Your task to perform on an android device: see tabs open on other devices in the chrome app Image 0: 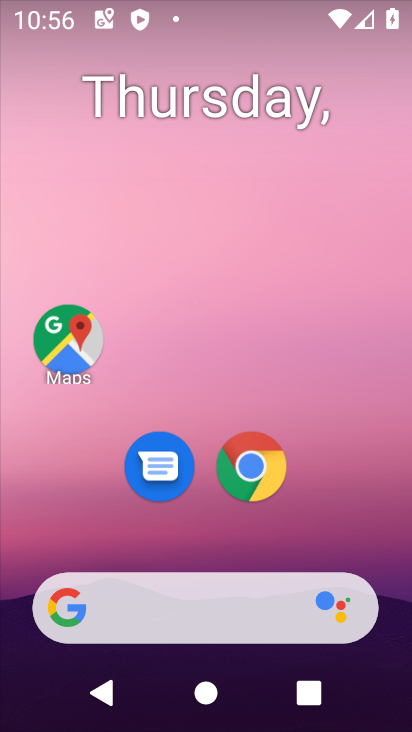
Step 0: drag from (211, 546) to (130, 2)
Your task to perform on an android device: see tabs open on other devices in the chrome app Image 1: 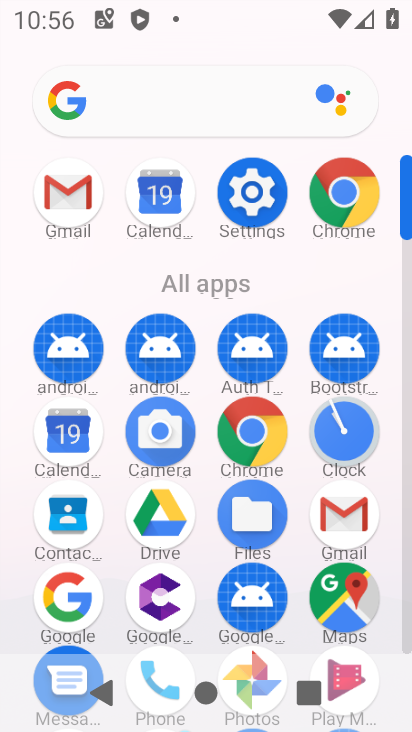
Step 1: click (256, 451)
Your task to perform on an android device: see tabs open on other devices in the chrome app Image 2: 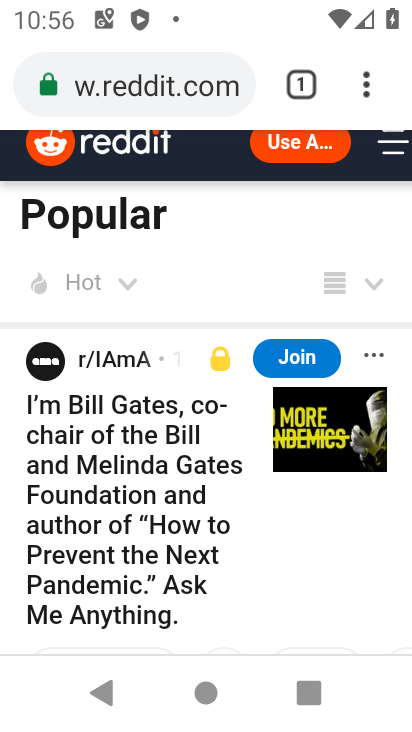
Step 2: click (315, 80)
Your task to perform on an android device: see tabs open on other devices in the chrome app Image 3: 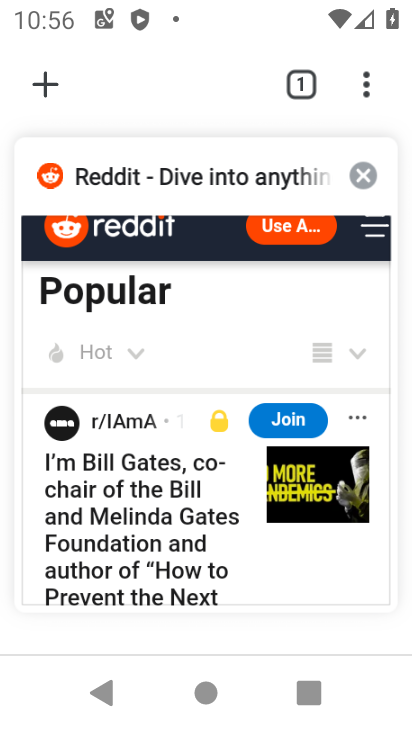
Step 3: task complete